Your task to perform on an android device: delete a single message in the gmail app Image 0: 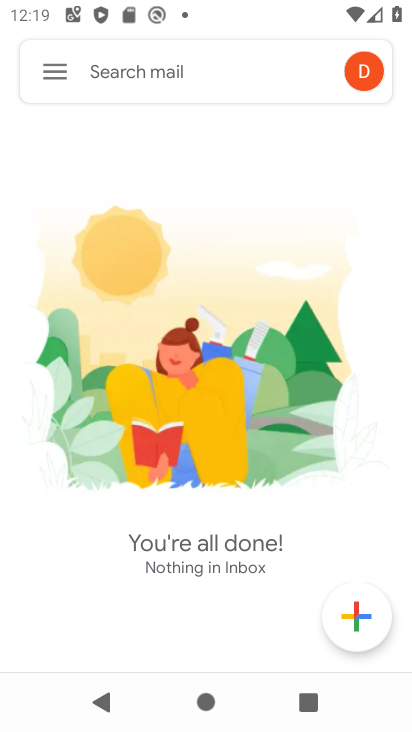
Step 0: press home button
Your task to perform on an android device: delete a single message in the gmail app Image 1: 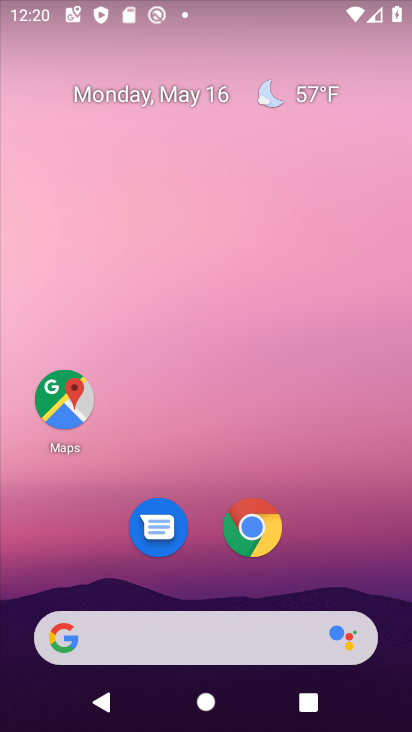
Step 1: drag from (173, 520) to (196, 51)
Your task to perform on an android device: delete a single message in the gmail app Image 2: 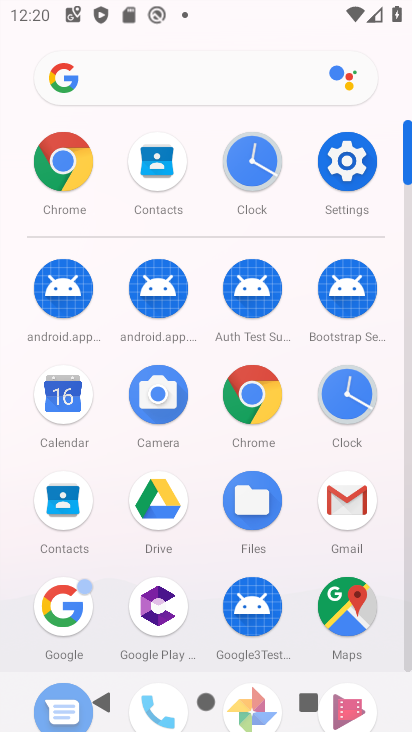
Step 2: click (336, 500)
Your task to perform on an android device: delete a single message in the gmail app Image 3: 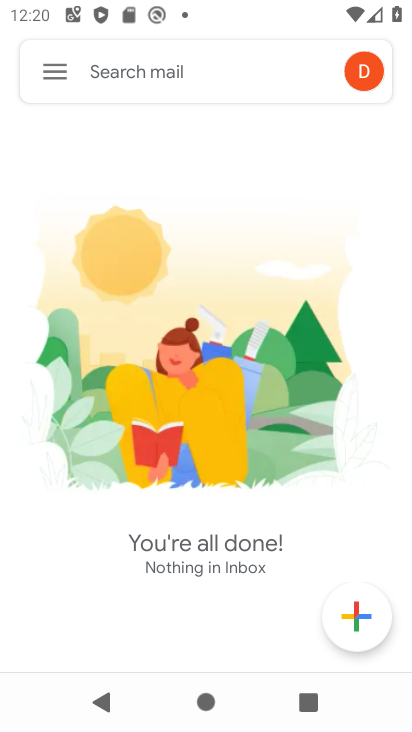
Step 3: click (53, 83)
Your task to perform on an android device: delete a single message in the gmail app Image 4: 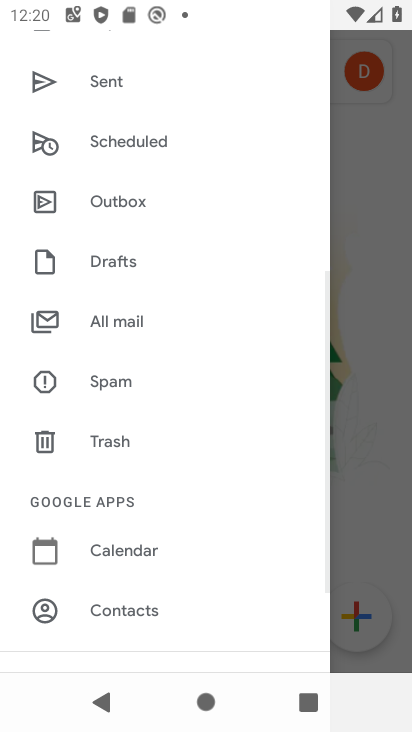
Step 4: click (116, 320)
Your task to perform on an android device: delete a single message in the gmail app Image 5: 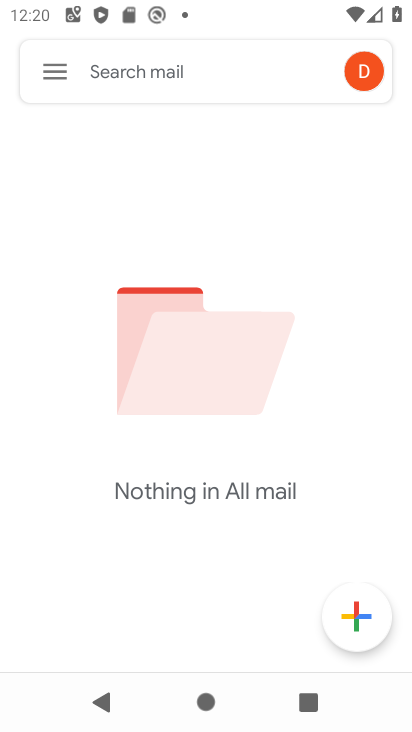
Step 5: task complete